Your task to perform on an android device: Show me the alarms in the clock app Image 0: 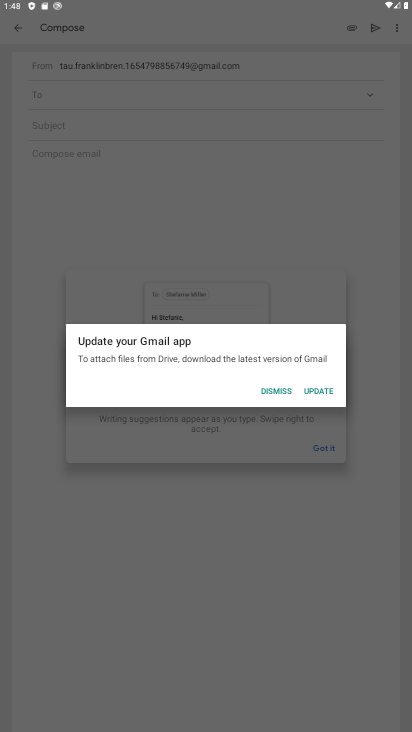
Step 0: press home button
Your task to perform on an android device: Show me the alarms in the clock app Image 1: 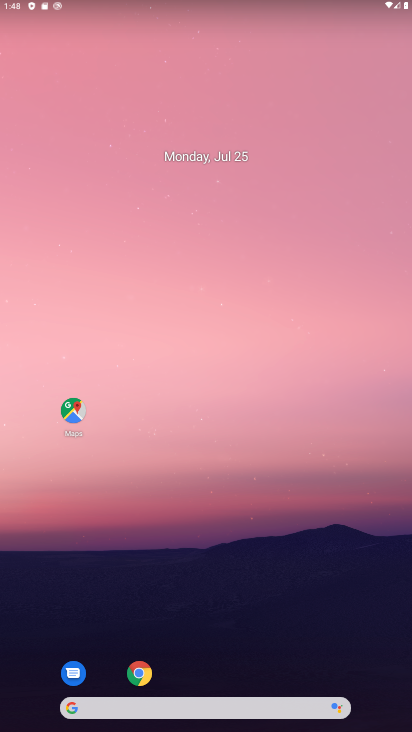
Step 1: drag from (176, 680) to (224, 144)
Your task to perform on an android device: Show me the alarms in the clock app Image 2: 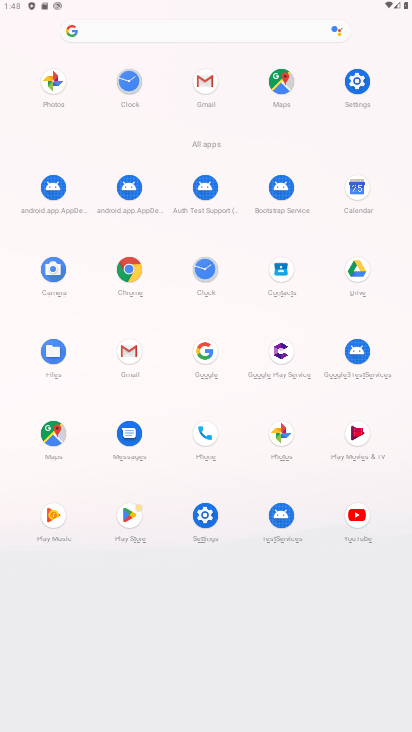
Step 2: click (195, 284)
Your task to perform on an android device: Show me the alarms in the clock app Image 3: 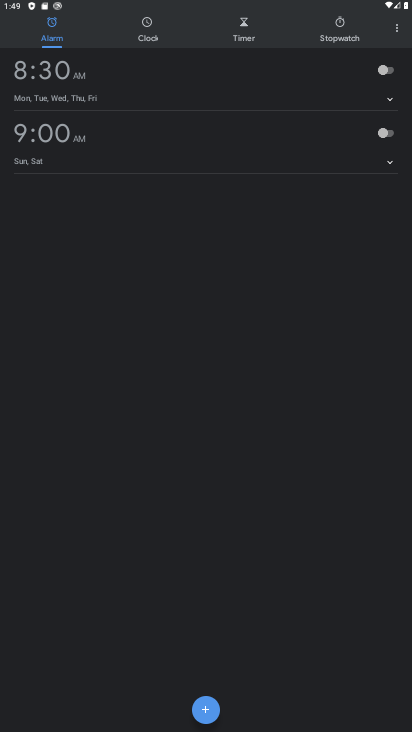
Step 3: task complete